Your task to perform on an android device: turn off wifi Image 0: 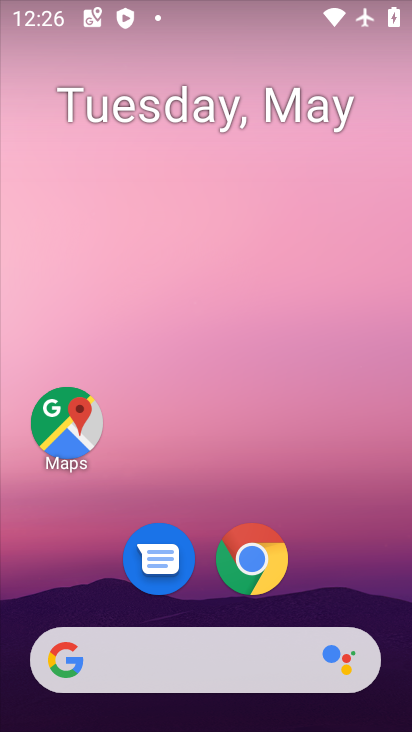
Step 0: drag from (336, 575) to (337, 59)
Your task to perform on an android device: turn off wifi Image 1: 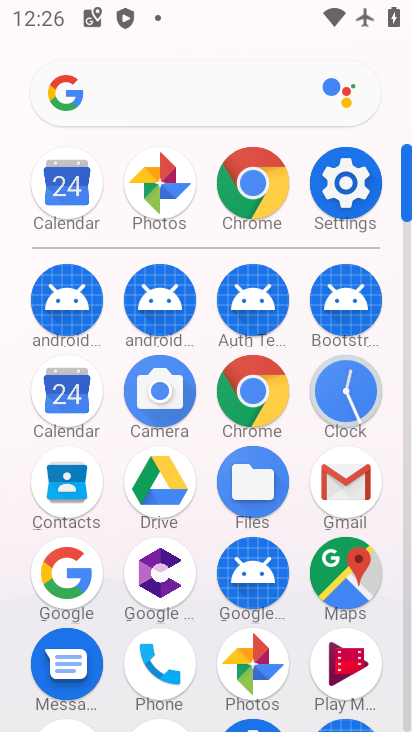
Step 1: click (314, 189)
Your task to perform on an android device: turn off wifi Image 2: 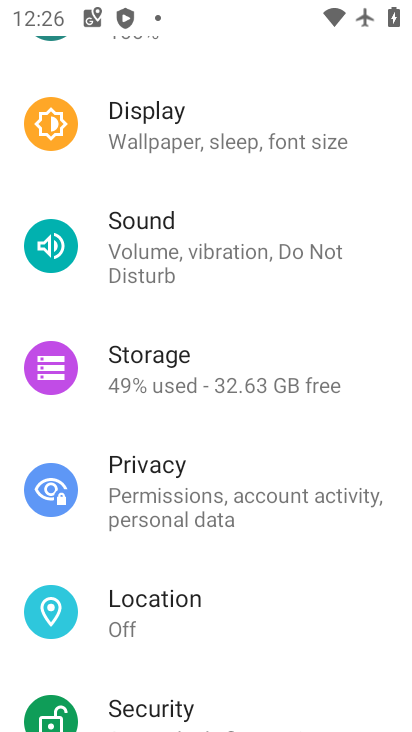
Step 2: drag from (225, 208) to (323, 707)
Your task to perform on an android device: turn off wifi Image 3: 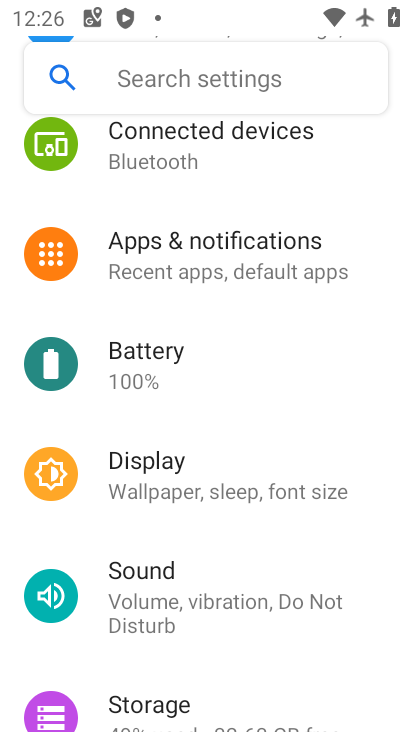
Step 3: drag from (292, 247) to (300, 601)
Your task to perform on an android device: turn off wifi Image 4: 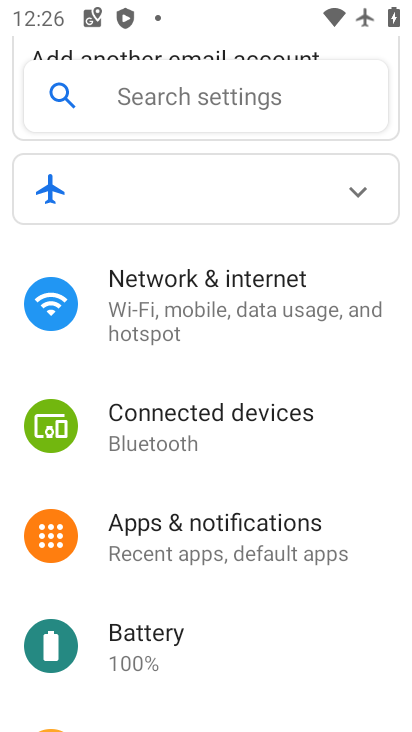
Step 4: click (264, 282)
Your task to perform on an android device: turn off wifi Image 5: 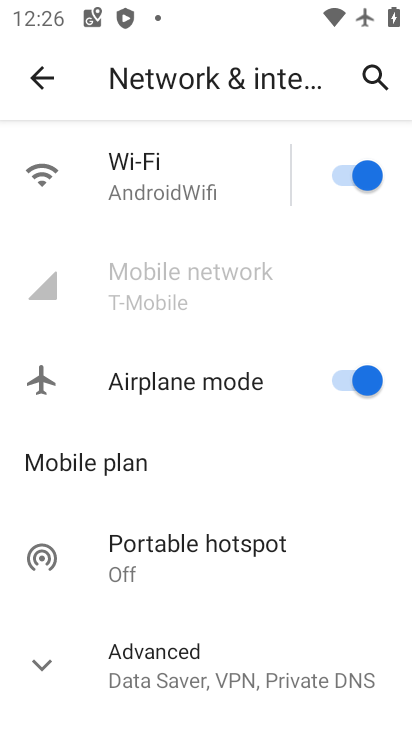
Step 5: click (340, 353)
Your task to perform on an android device: turn off wifi Image 6: 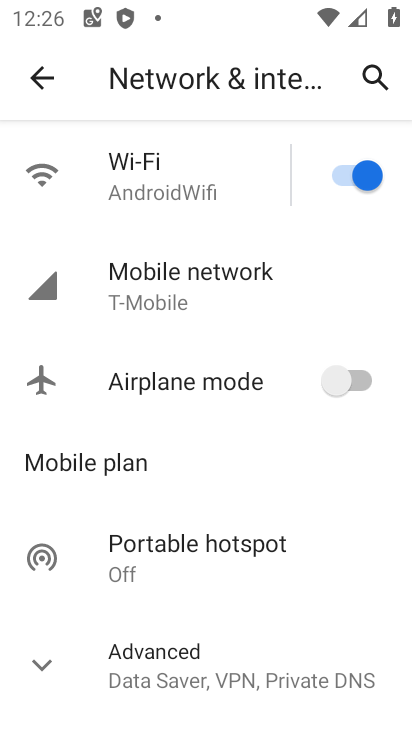
Step 6: click (365, 167)
Your task to perform on an android device: turn off wifi Image 7: 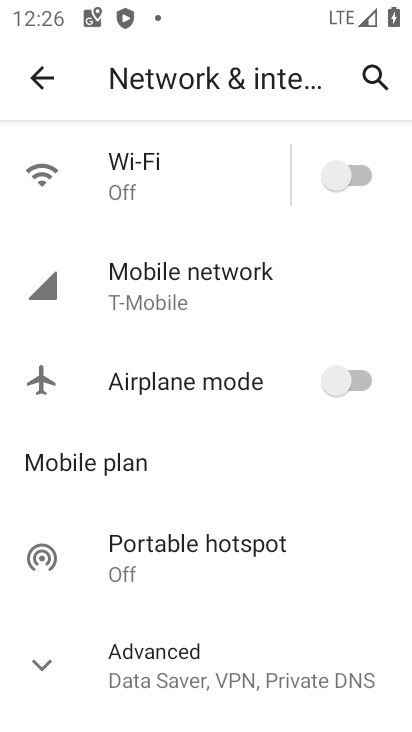
Step 7: task complete